Your task to perform on an android device: add a contact in the contacts app Image 0: 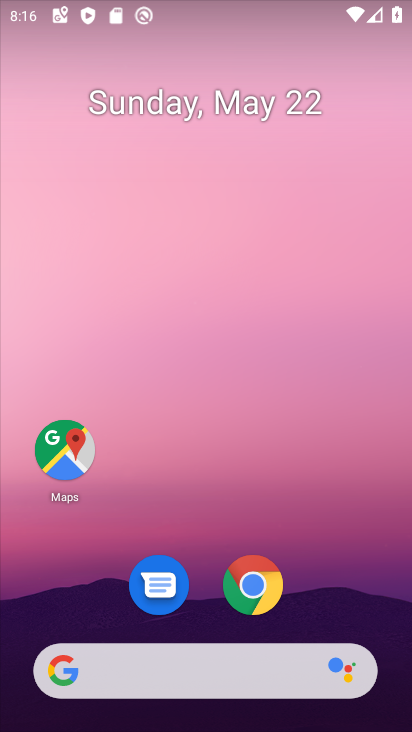
Step 0: drag from (232, 491) to (223, 26)
Your task to perform on an android device: add a contact in the contacts app Image 1: 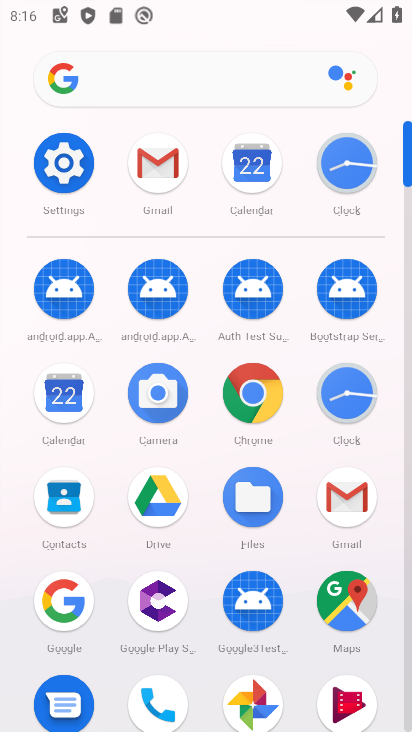
Step 1: click (77, 503)
Your task to perform on an android device: add a contact in the contacts app Image 2: 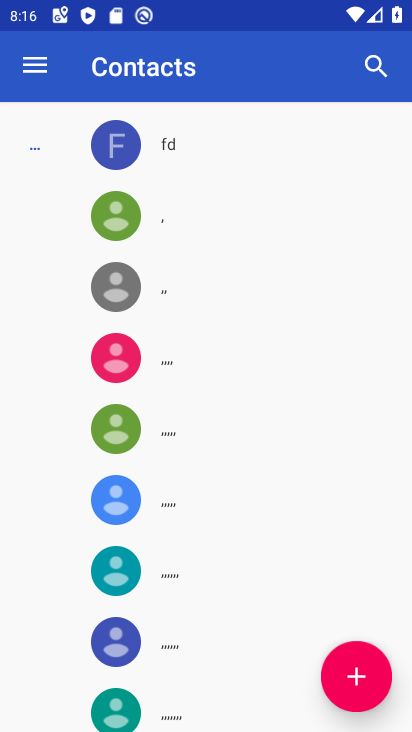
Step 2: click (348, 648)
Your task to perform on an android device: add a contact in the contacts app Image 3: 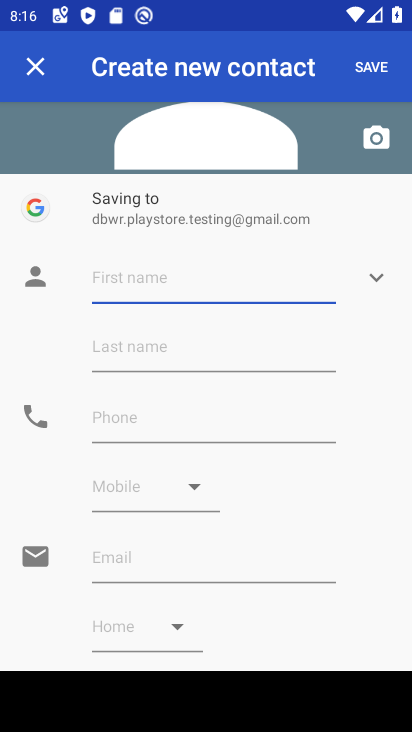
Step 3: type "Brahmapushpa"
Your task to perform on an android device: add a contact in the contacts app Image 4: 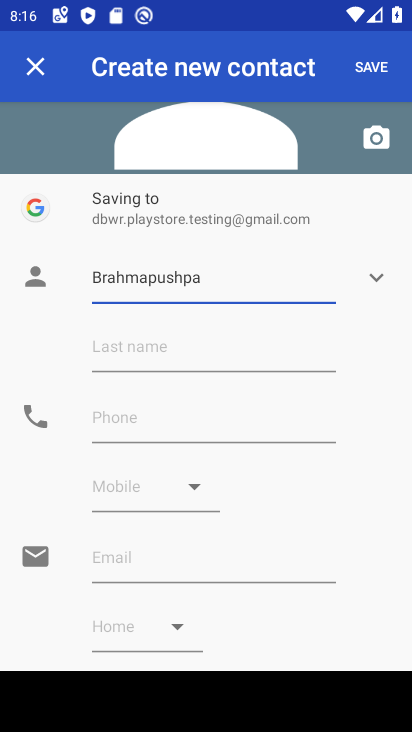
Step 4: click (287, 429)
Your task to perform on an android device: add a contact in the contacts app Image 5: 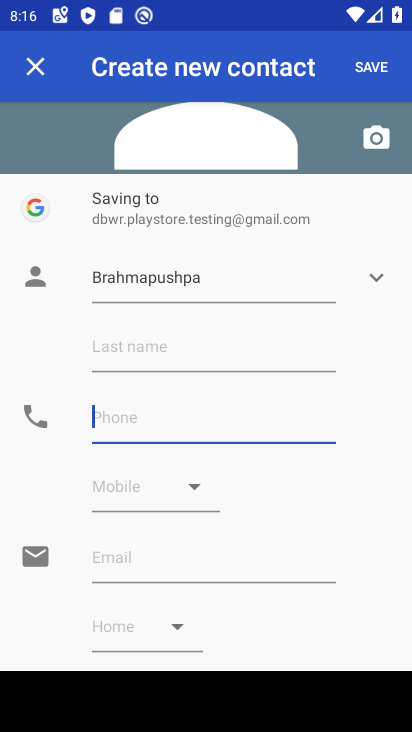
Step 5: type "01122334455"
Your task to perform on an android device: add a contact in the contacts app Image 6: 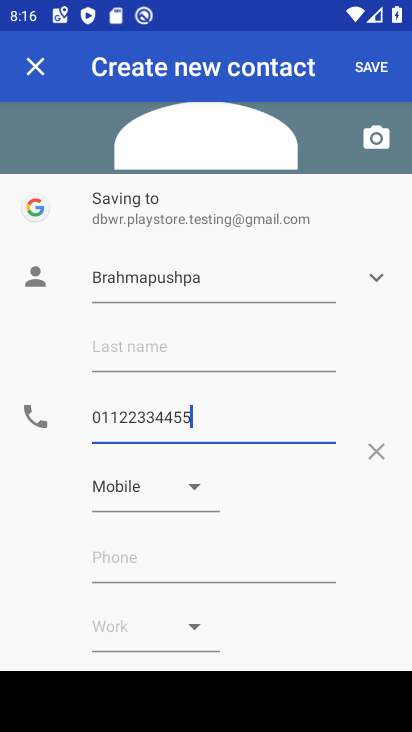
Step 6: click (381, 66)
Your task to perform on an android device: add a contact in the contacts app Image 7: 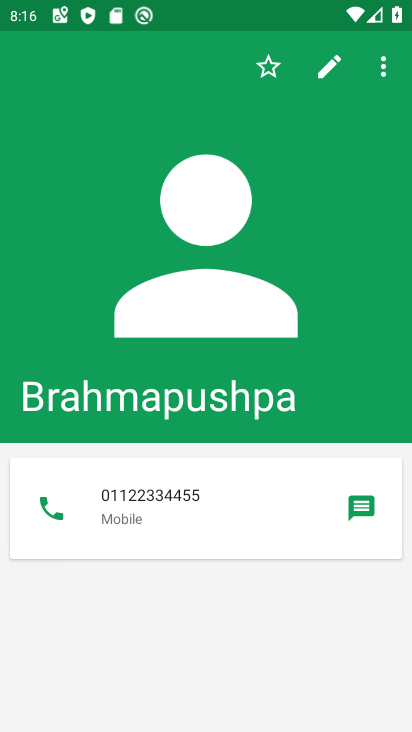
Step 7: task complete